Your task to perform on an android device: delete a single message in the gmail app Image 0: 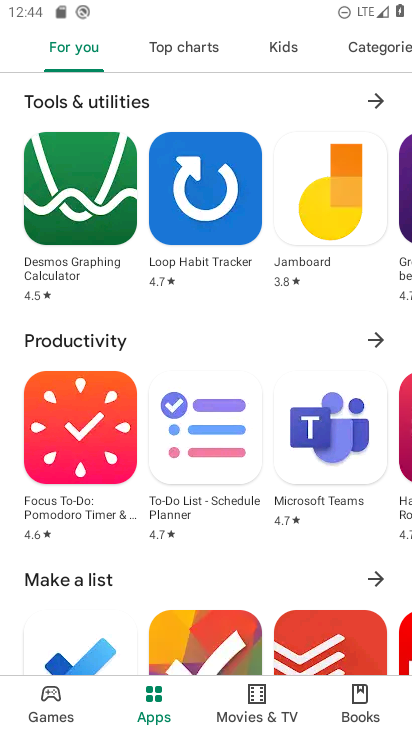
Step 0: press home button
Your task to perform on an android device: delete a single message in the gmail app Image 1: 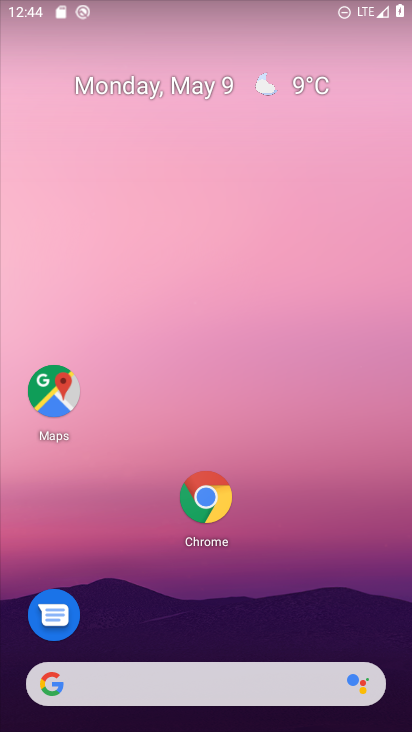
Step 1: drag from (353, 600) to (304, 3)
Your task to perform on an android device: delete a single message in the gmail app Image 2: 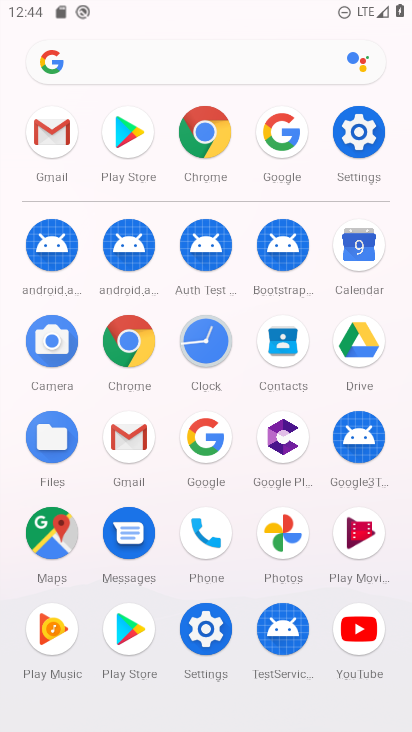
Step 2: click (140, 427)
Your task to perform on an android device: delete a single message in the gmail app Image 3: 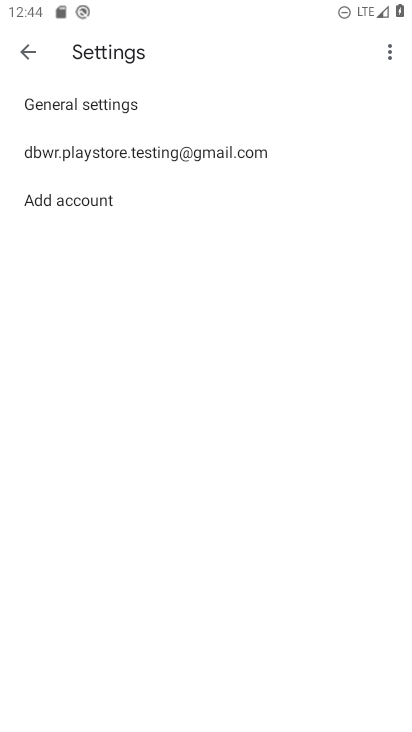
Step 3: press home button
Your task to perform on an android device: delete a single message in the gmail app Image 4: 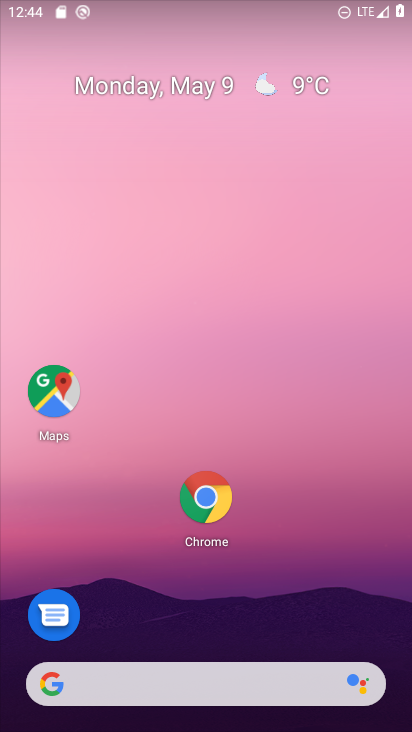
Step 4: drag from (286, 600) to (252, 26)
Your task to perform on an android device: delete a single message in the gmail app Image 5: 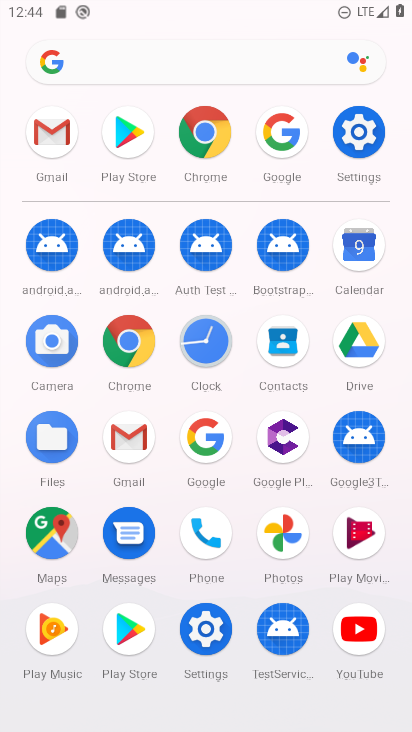
Step 5: click (46, 138)
Your task to perform on an android device: delete a single message in the gmail app Image 6: 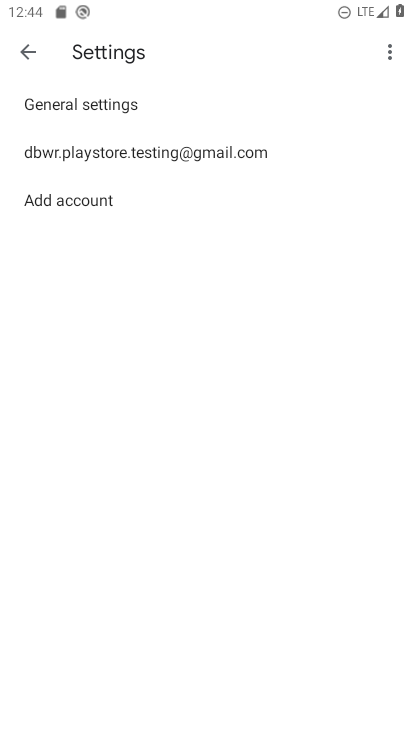
Step 6: click (28, 63)
Your task to perform on an android device: delete a single message in the gmail app Image 7: 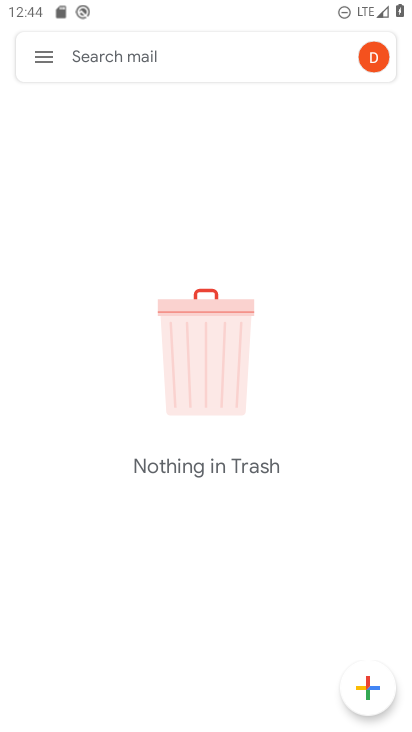
Step 7: click (38, 58)
Your task to perform on an android device: delete a single message in the gmail app Image 8: 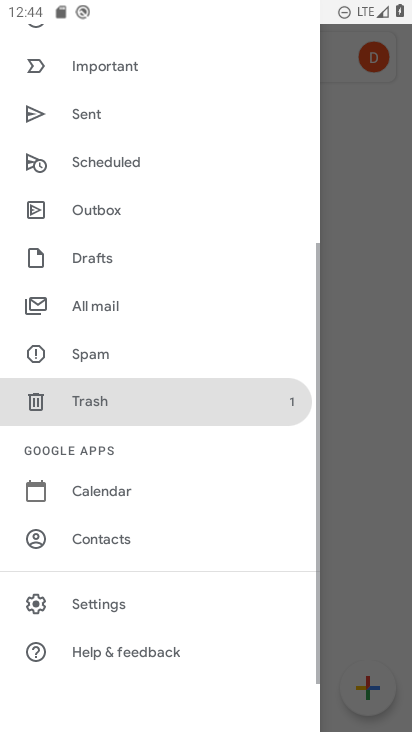
Step 8: click (104, 306)
Your task to perform on an android device: delete a single message in the gmail app Image 9: 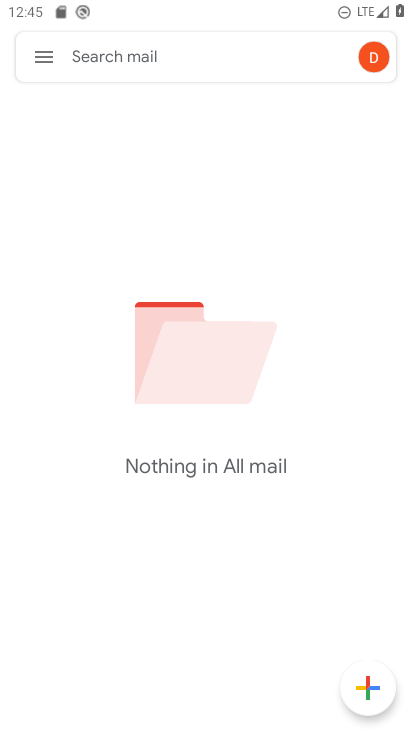
Step 9: task complete